Your task to perform on an android device: Is it going to rain this weekend? Image 0: 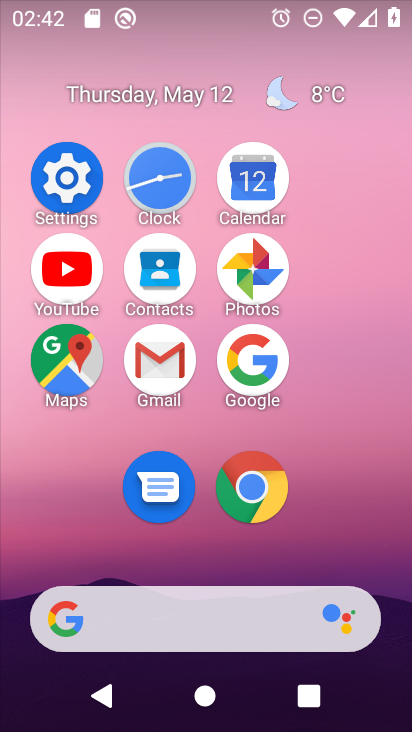
Step 0: click (249, 358)
Your task to perform on an android device: Is it going to rain this weekend? Image 1: 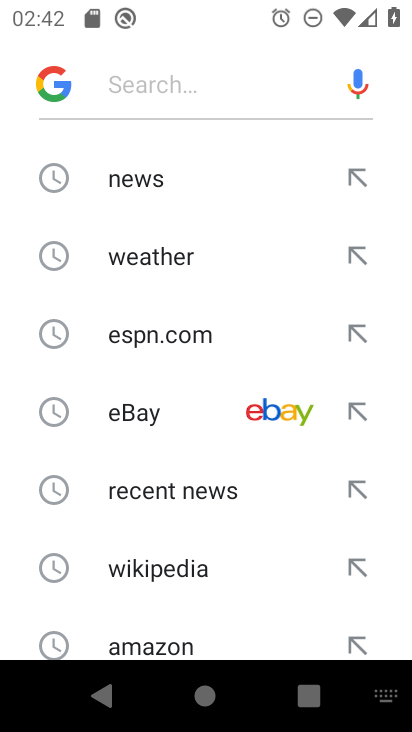
Step 1: click (192, 257)
Your task to perform on an android device: Is it going to rain this weekend? Image 2: 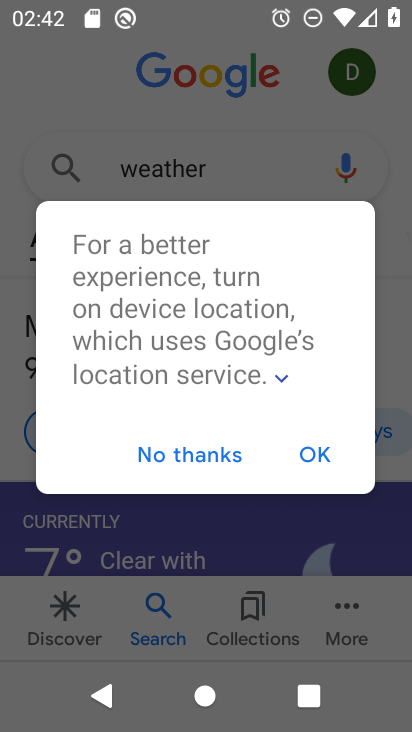
Step 2: click (366, 419)
Your task to perform on an android device: Is it going to rain this weekend? Image 3: 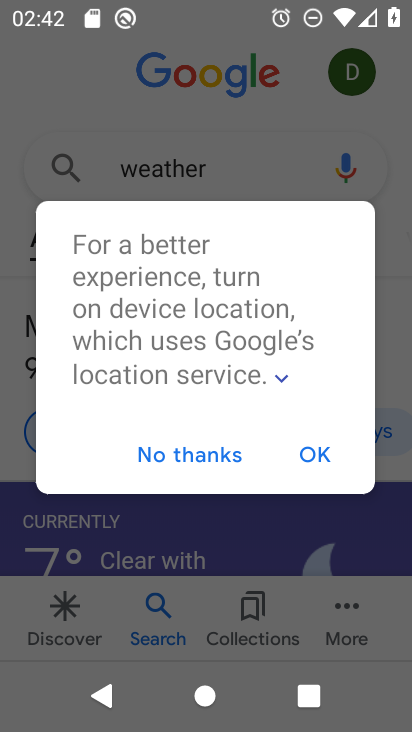
Step 3: click (313, 462)
Your task to perform on an android device: Is it going to rain this weekend? Image 4: 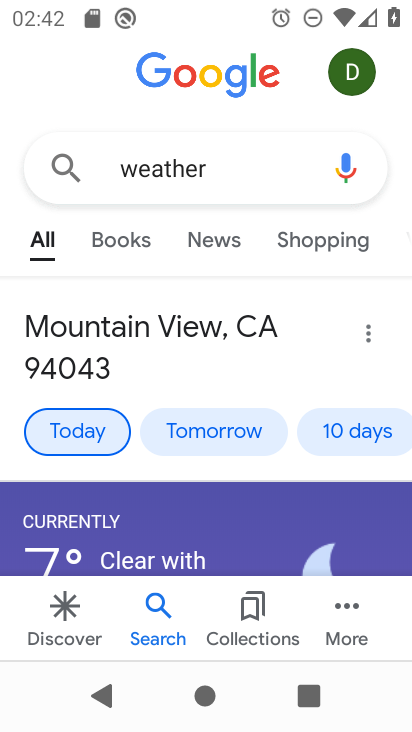
Step 4: click (338, 427)
Your task to perform on an android device: Is it going to rain this weekend? Image 5: 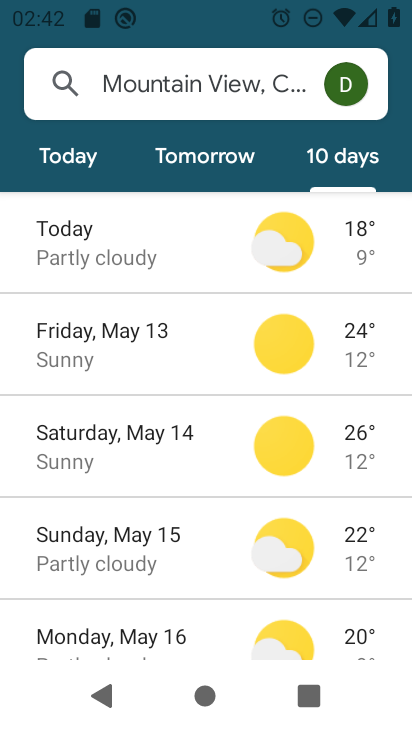
Step 5: click (116, 459)
Your task to perform on an android device: Is it going to rain this weekend? Image 6: 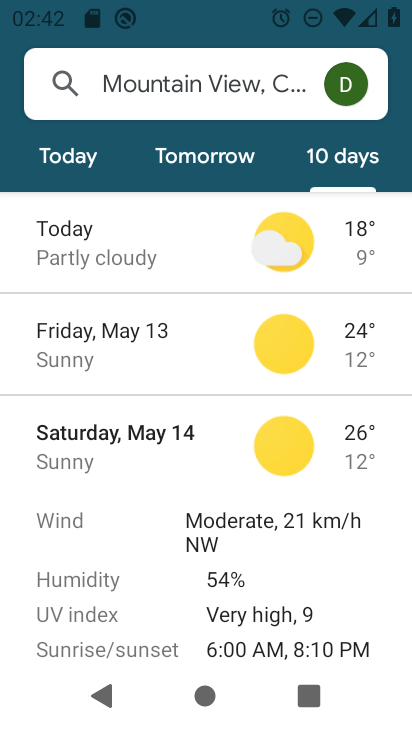
Step 6: task complete